Your task to perform on an android device: Turn on the flashlight Image 0: 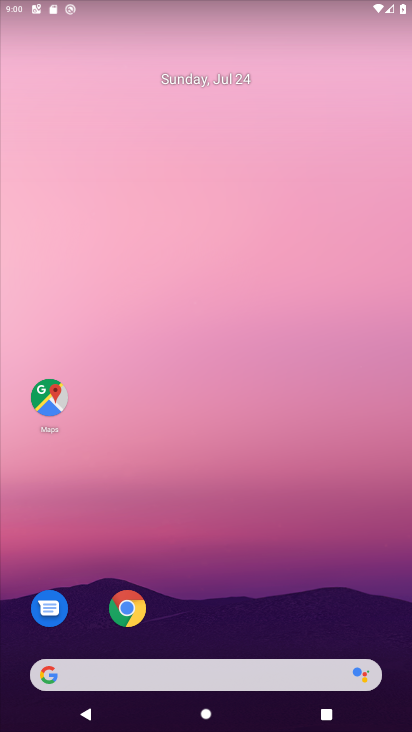
Step 0: drag from (291, 536) to (287, 122)
Your task to perform on an android device: Turn on the flashlight Image 1: 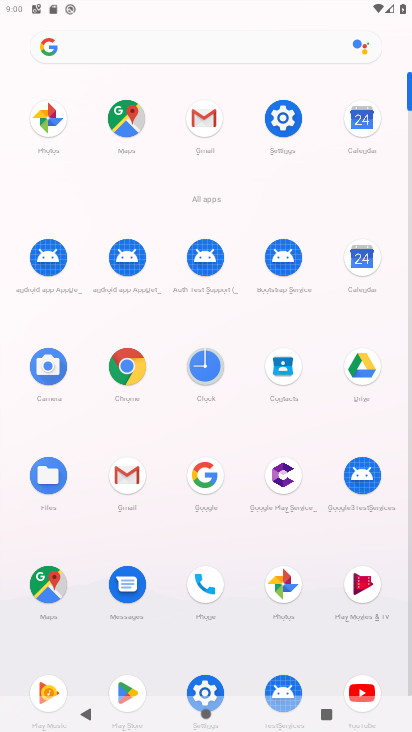
Step 1: click (276, 116)
Your task to perform on an android device: Turn on the flashlight Image 2: 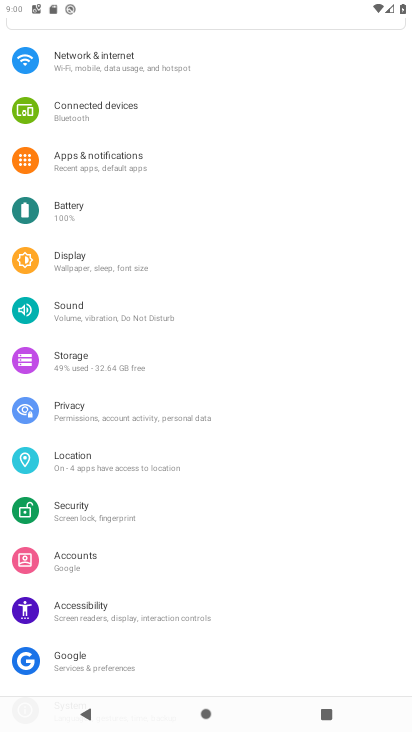
Step 2: task complete